Your task to perform on an android device: Go to Yahoo.com Image 0: 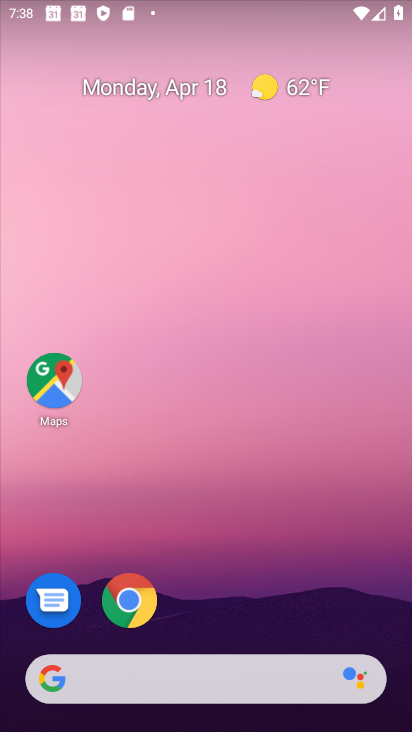
Step 0: click (200, 66)
Your task to perform on an android device: Go to Yahoo.com Image 1: 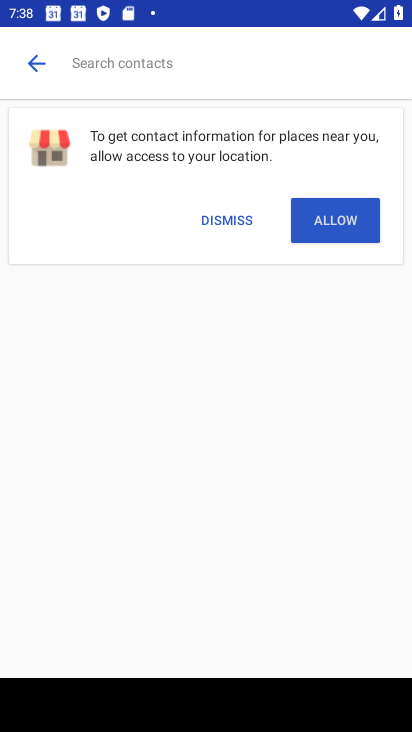
Step 1: press home button
Your task to perform on an android device: Go to Yahoo.com Image 2: 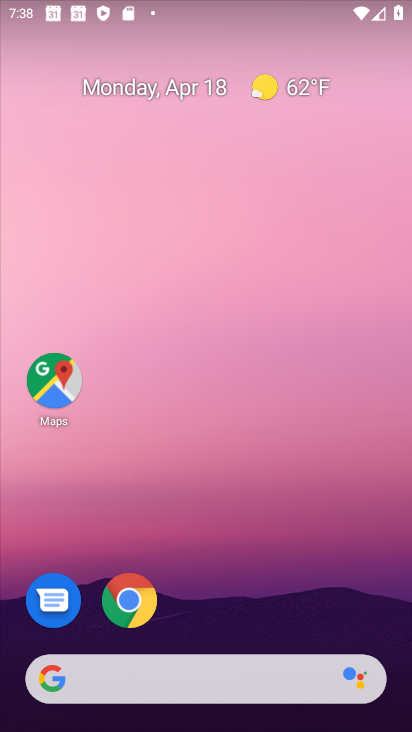
Step 2: click (140, 608)
Your task to perform on an android device: Go to Yahoo.com Image 3: 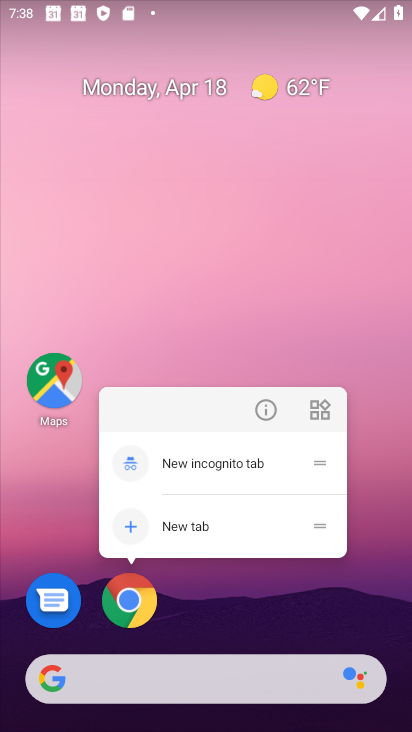
Step 3: click (139, 607)
Your task to perform on an android device: Go to Yahoo.com Image 4: 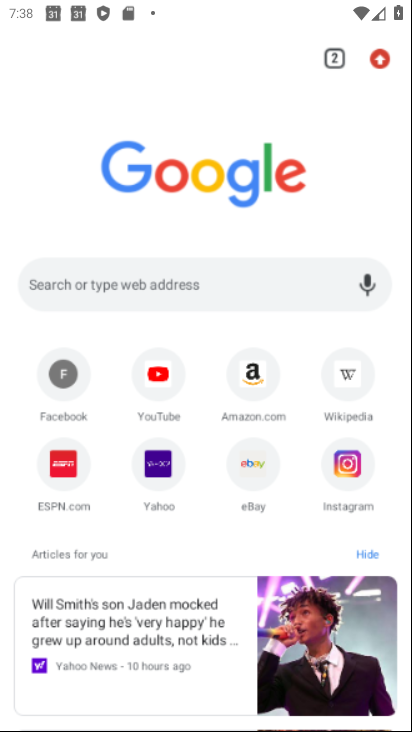
Step 4: click (148, 577)
Your task to perform on an android device: Go to Yahoo.com Image 5: 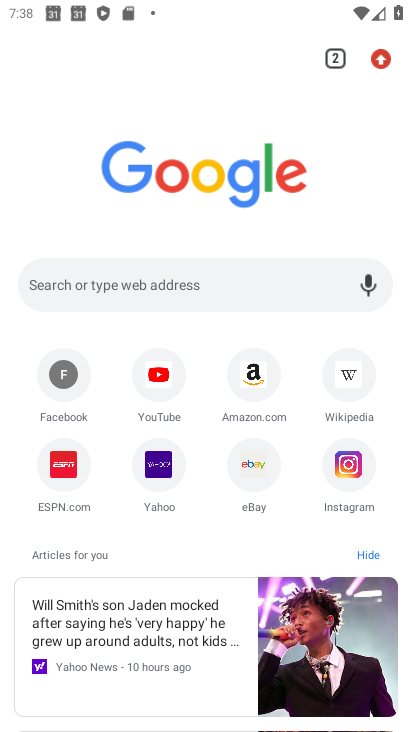
Step 5: click (158, 482)
Your task to perform on an android device: Go to Yahoo.com Image 6: 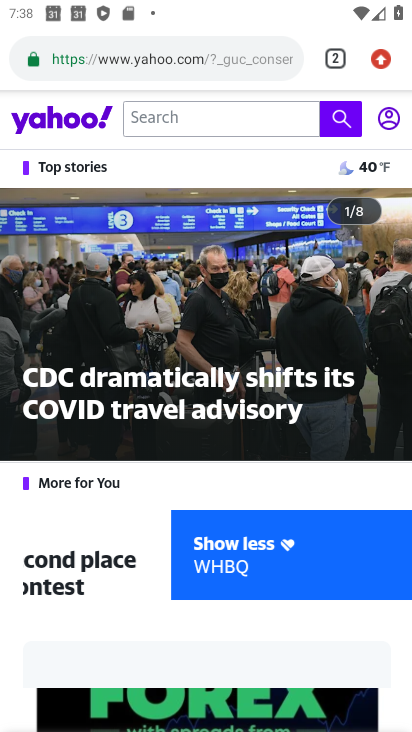
Step 6: task complete